Your task to perform on an android device: Open the map Image 0: 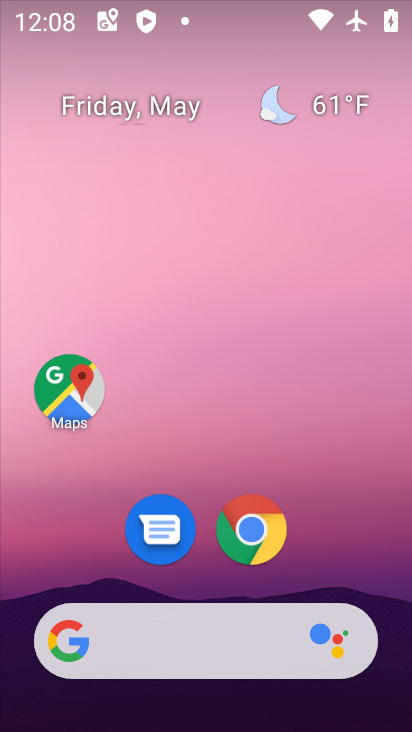
Step 0: click (58, 402)
Your task to perform on an android device: Open the map Image 1: 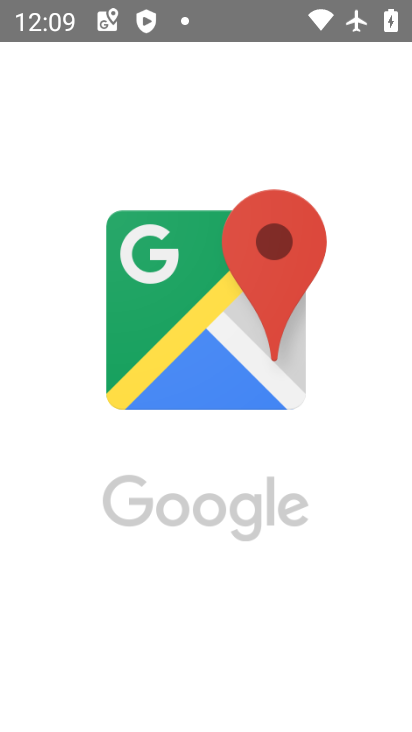
Step 1: task complete